Your task to perform on an android device: star an email in the gmail app Image 0: 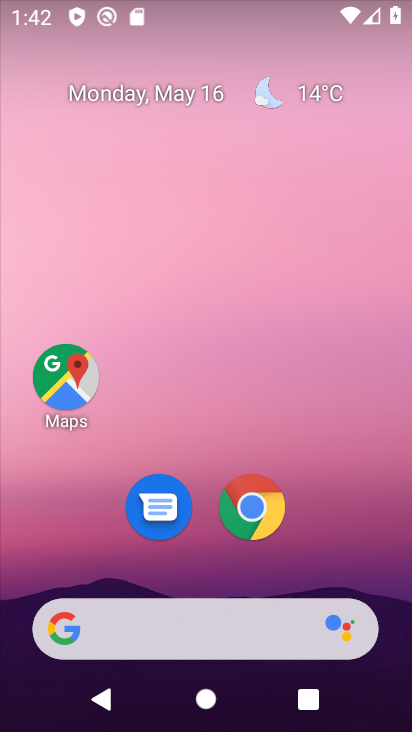
Step 0: drag from (287, 529) to (296, 208)
Your task to perform on an android device: star an email in the gmail app Image 1: 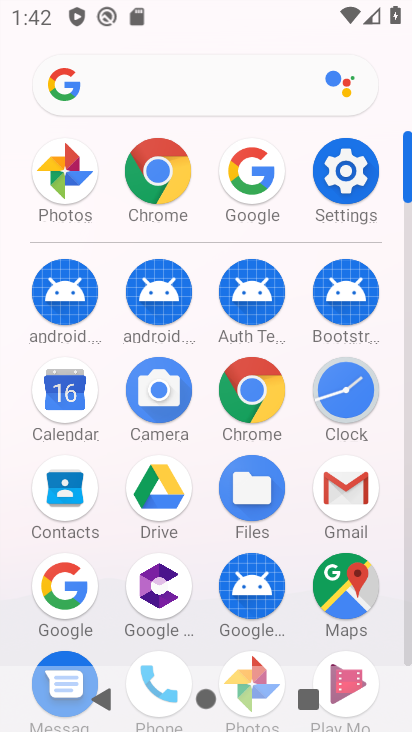
Step 1: click (357, 500)
Your task to perform on an android device: star an email in the gmail app Image 2: 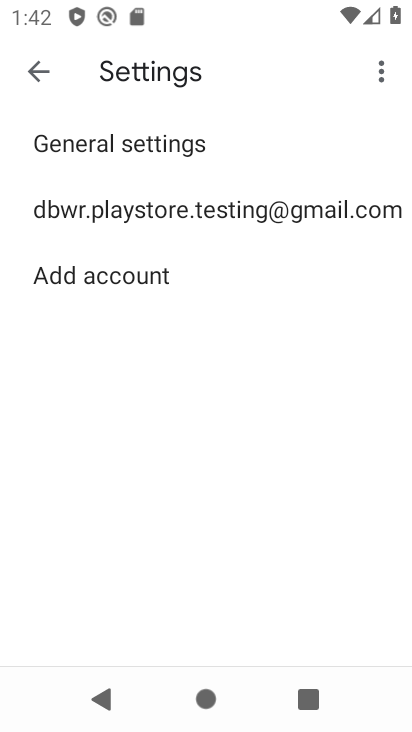
Step 2: click (30, 64)
Your task to perform on an android device: star an email in the gmail app Image 3: 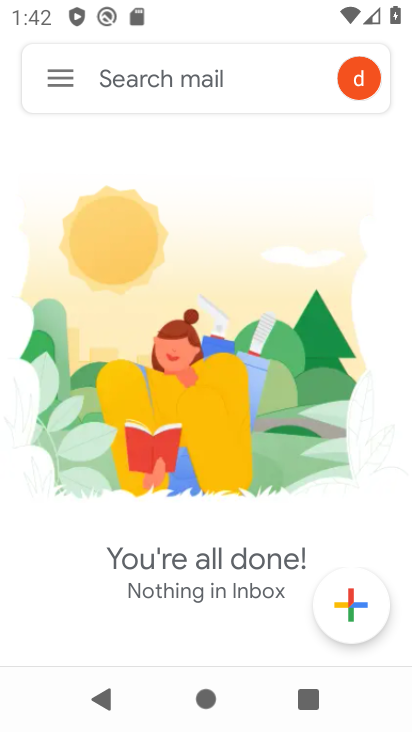
Step 3: click (73, 84)
Your task to perform on an android device: star an email in the gmail app Image 4: 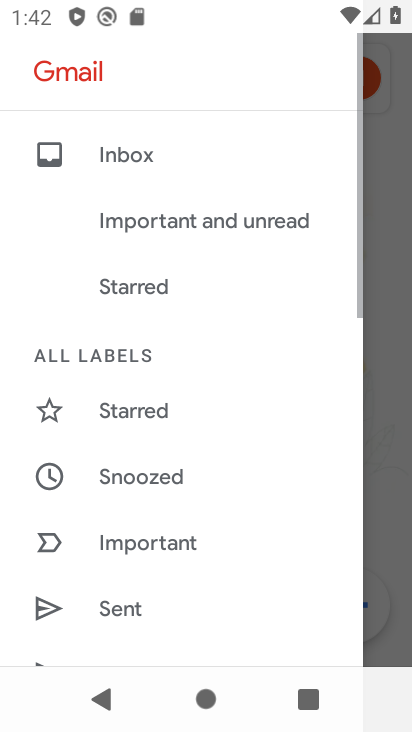
Step 4: drag from (171, 227) to (210, 582)
Your task to perform on an android device: star an email in the gmail app Image 5: 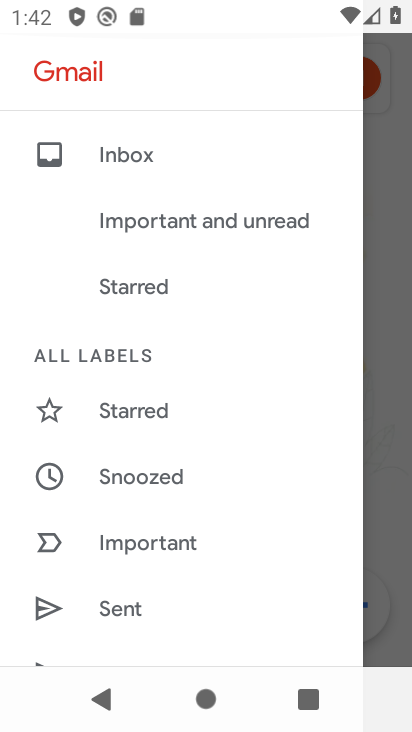
Step 5: drag from (188, 586) to (194, 173)
Your task to perform on an android device: star an email in the gmail app Image 6: 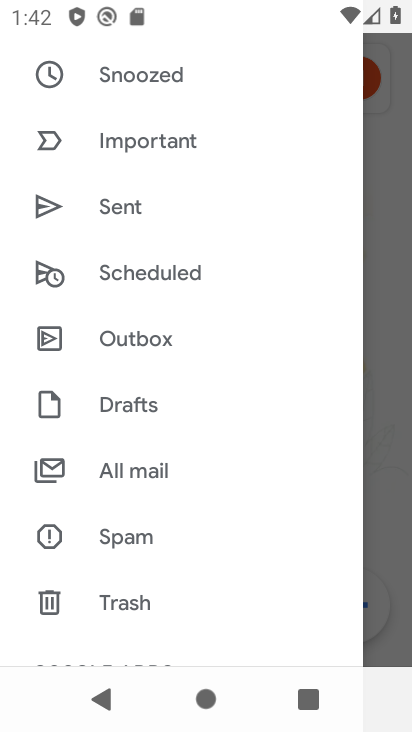
Step 6: click (134, 479)
Your task to perform on an android device: star an email in the gmail app Image 7: 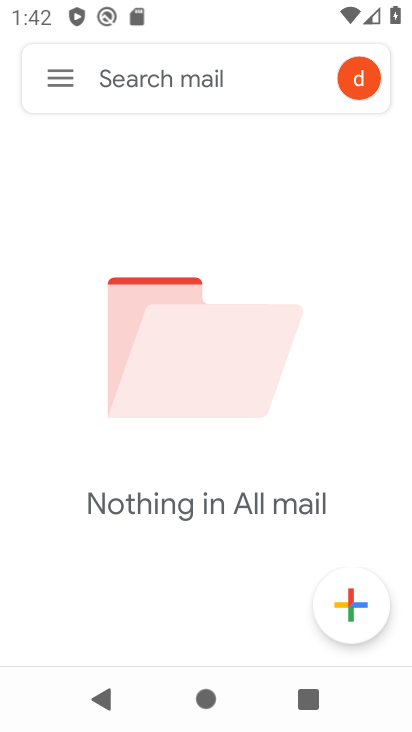
Step 7: task complete